Your task to perform on an android device: find which apps use the phone's location Image 0: 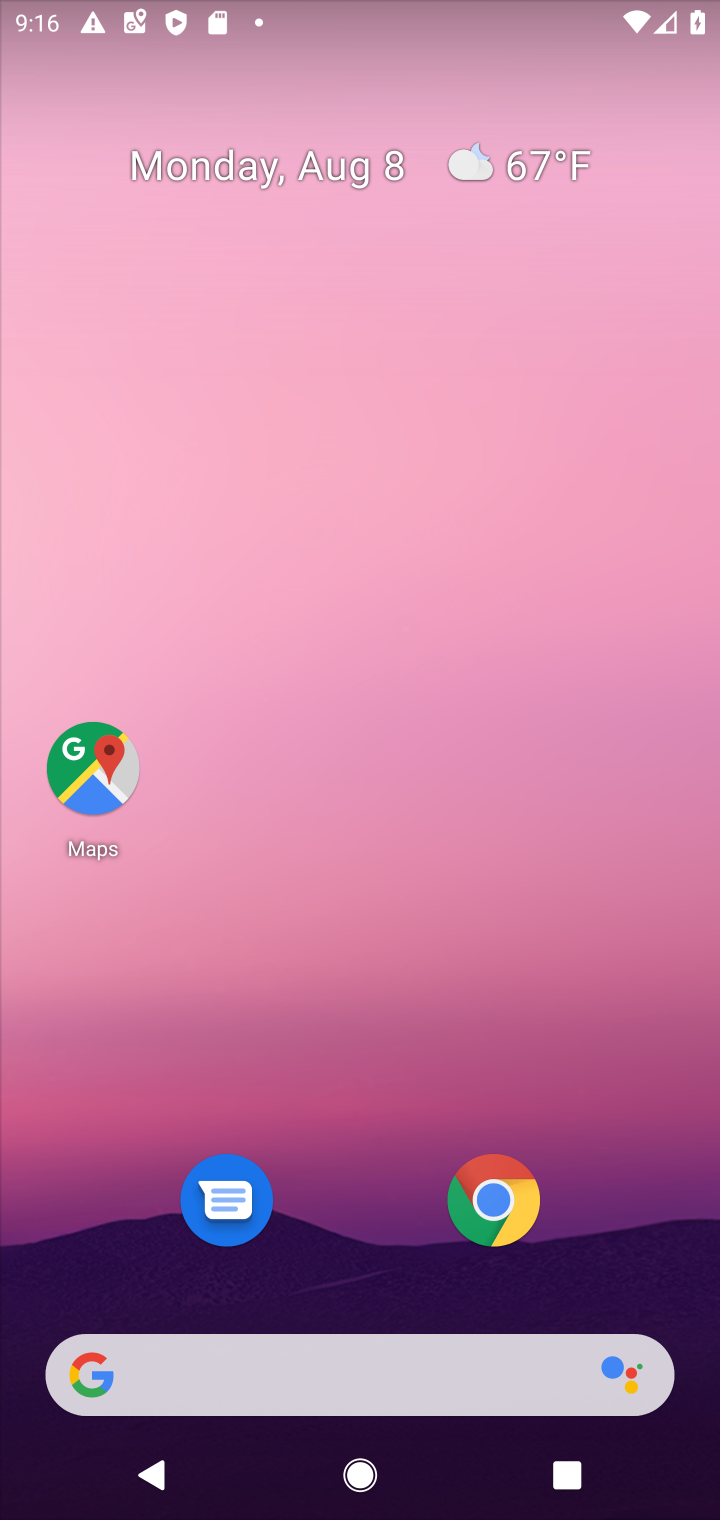
Step 0: press home button
Your task to perform on an android device: find which apps use the phone's location Image 1: 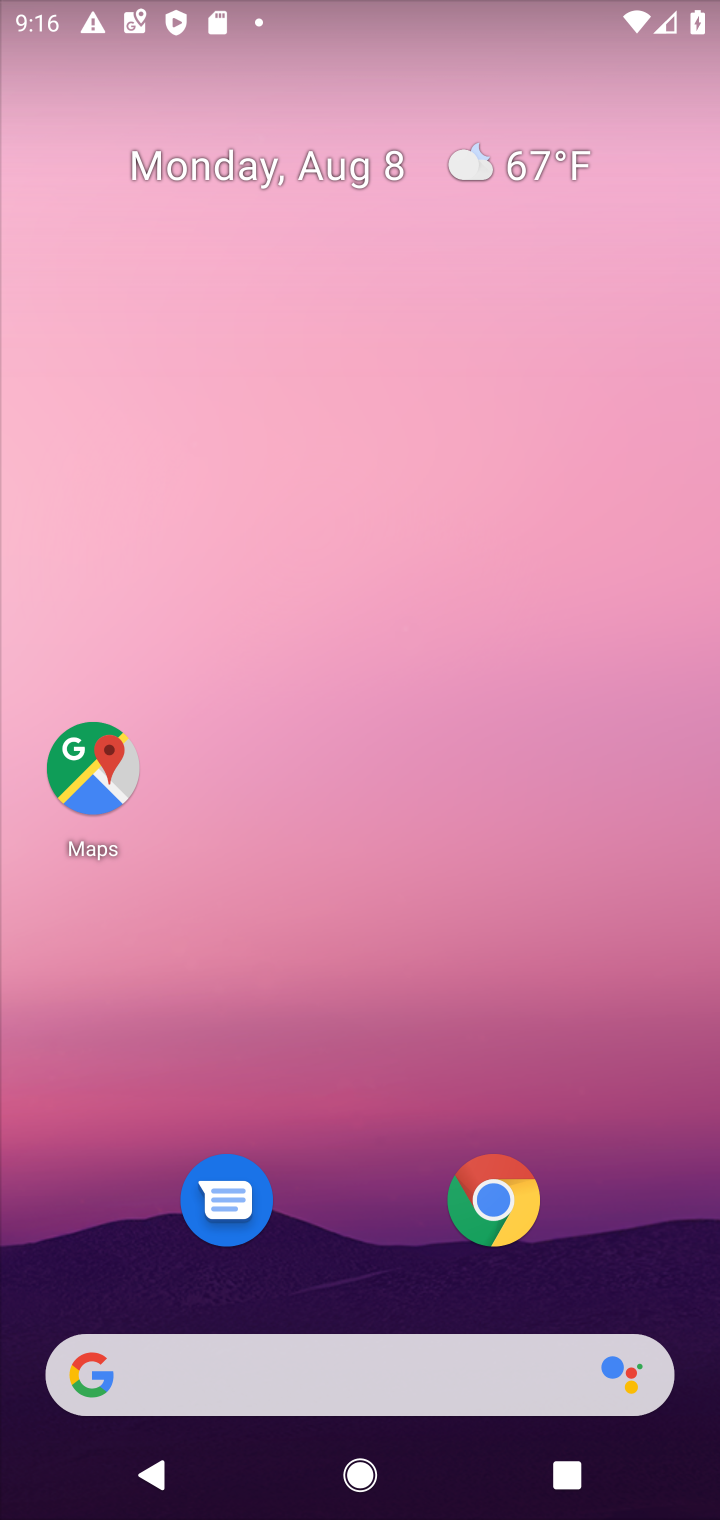
Step 1: drag from (302, 1349) to (603, 413)
Your task to perform on an android device: find which apps use the phone's location Image 2: 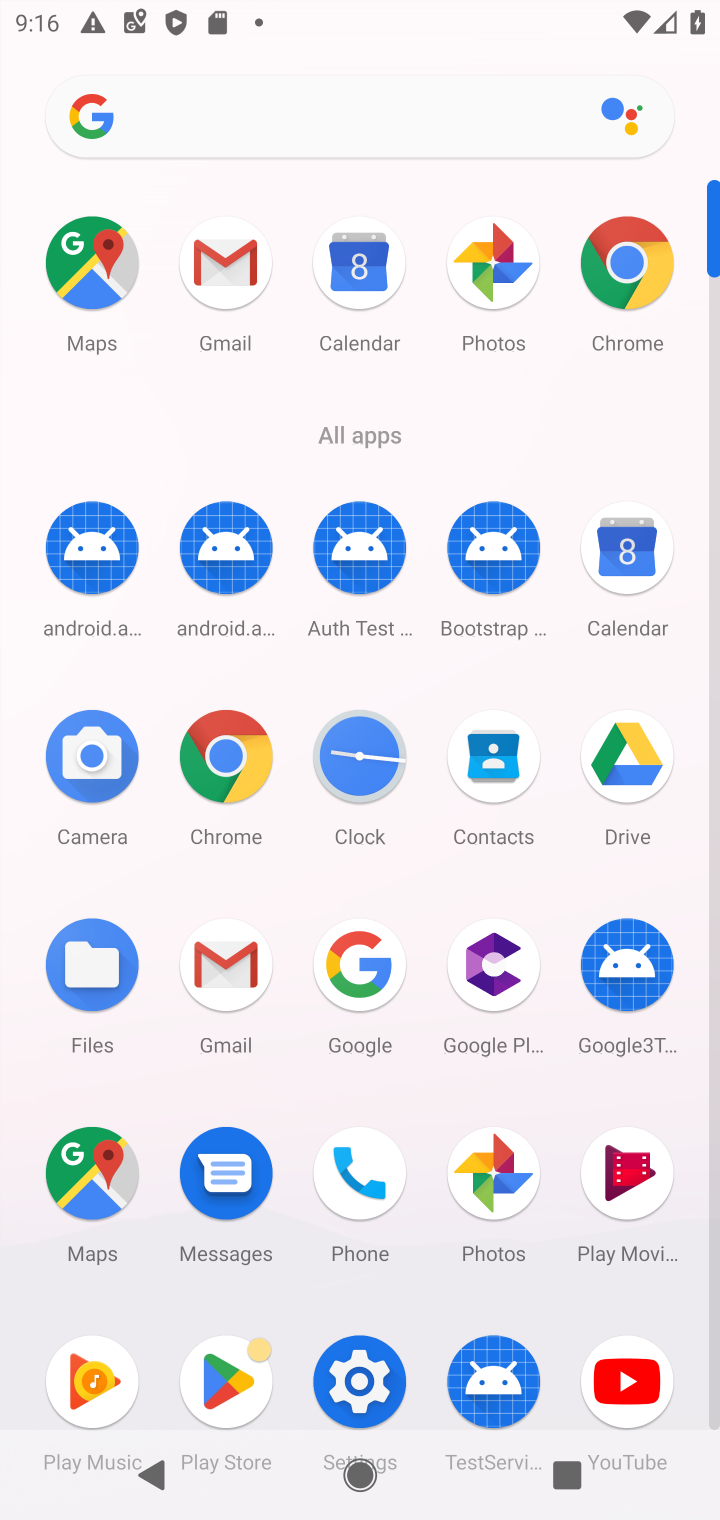
Step 2: click (362, 1368)
Your task to perform on an android device: find which apps use the phone's location Image 3: 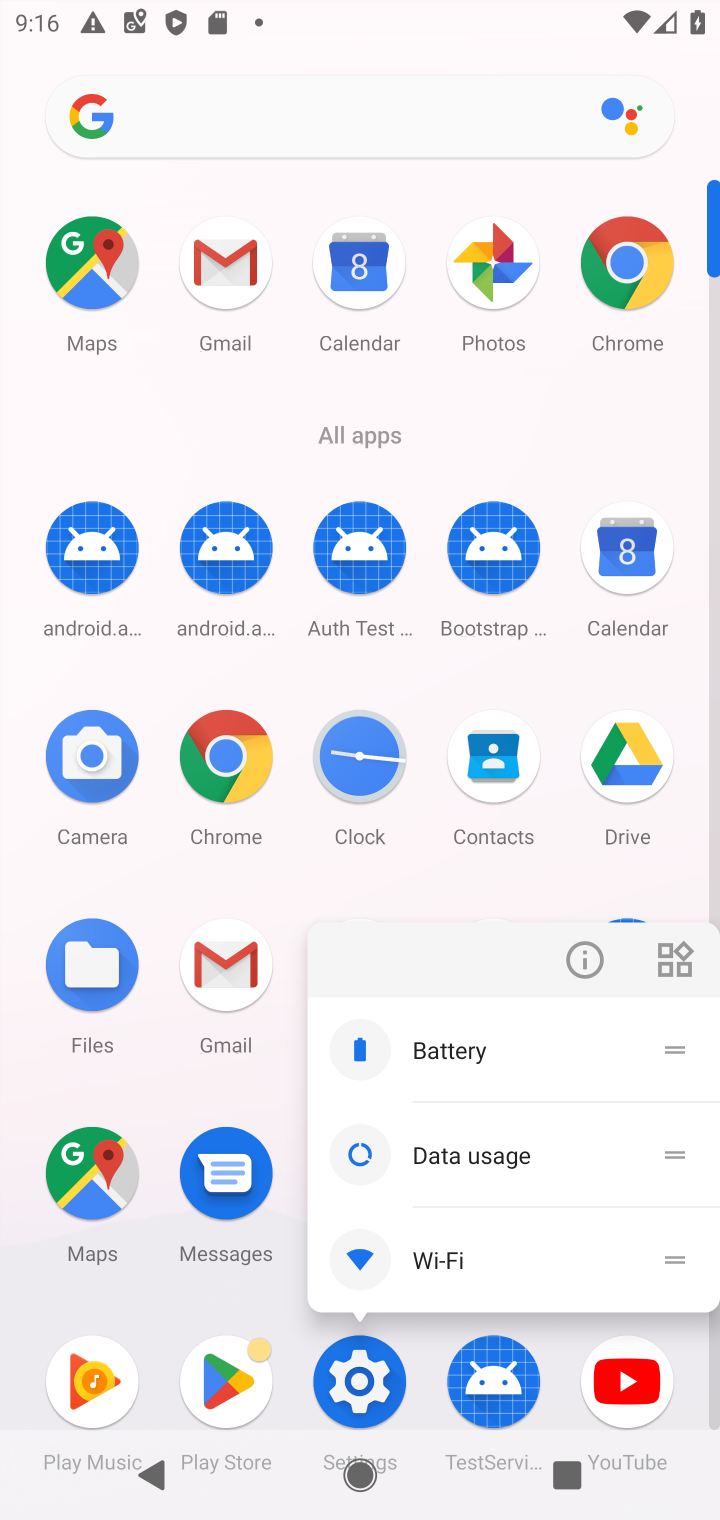
Step 3: click (356, 1368)
Your task to perform on an android device: find which apps use the phone's location Image 4: 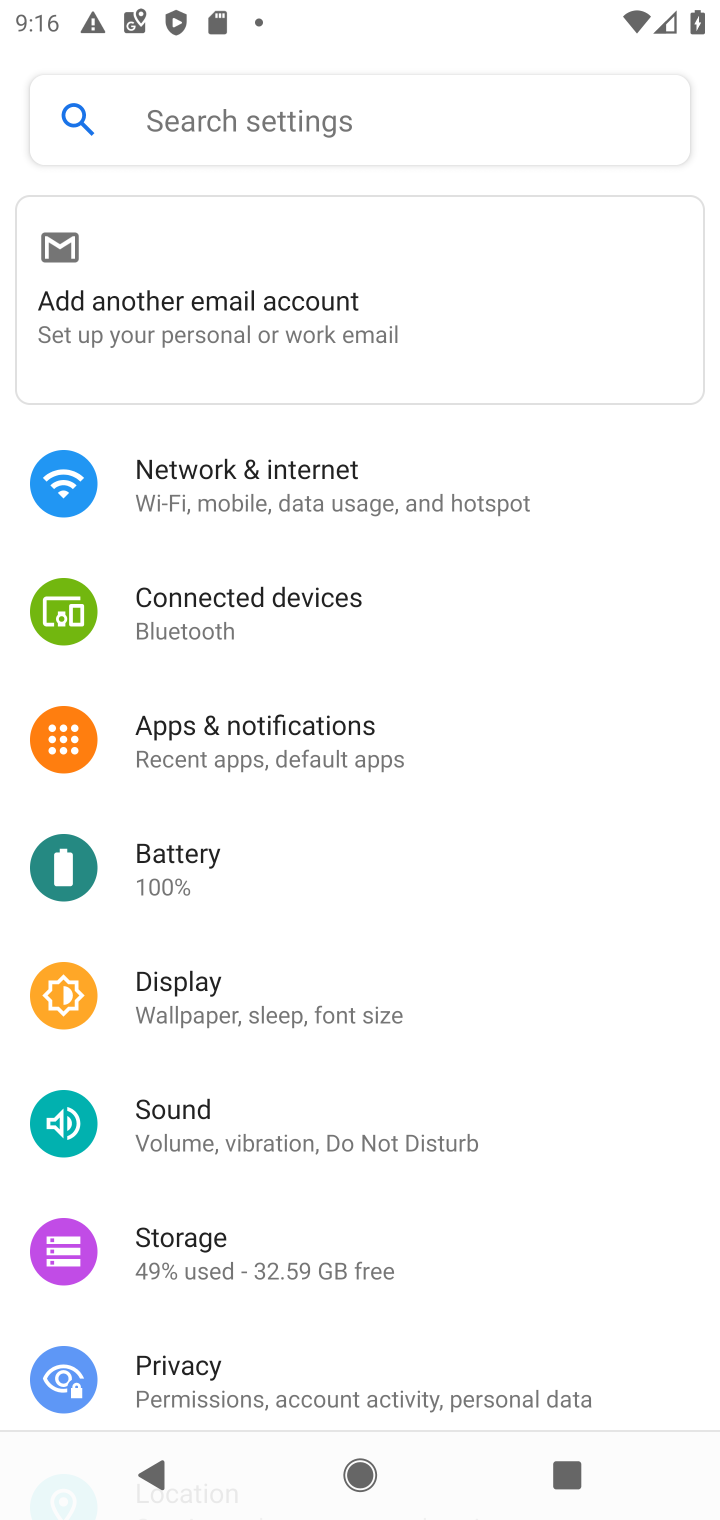
Step 4: drag from (432, 1226) to (705, 263)
Your task to perform on an android device: find which apps use the phone's location Image 5: 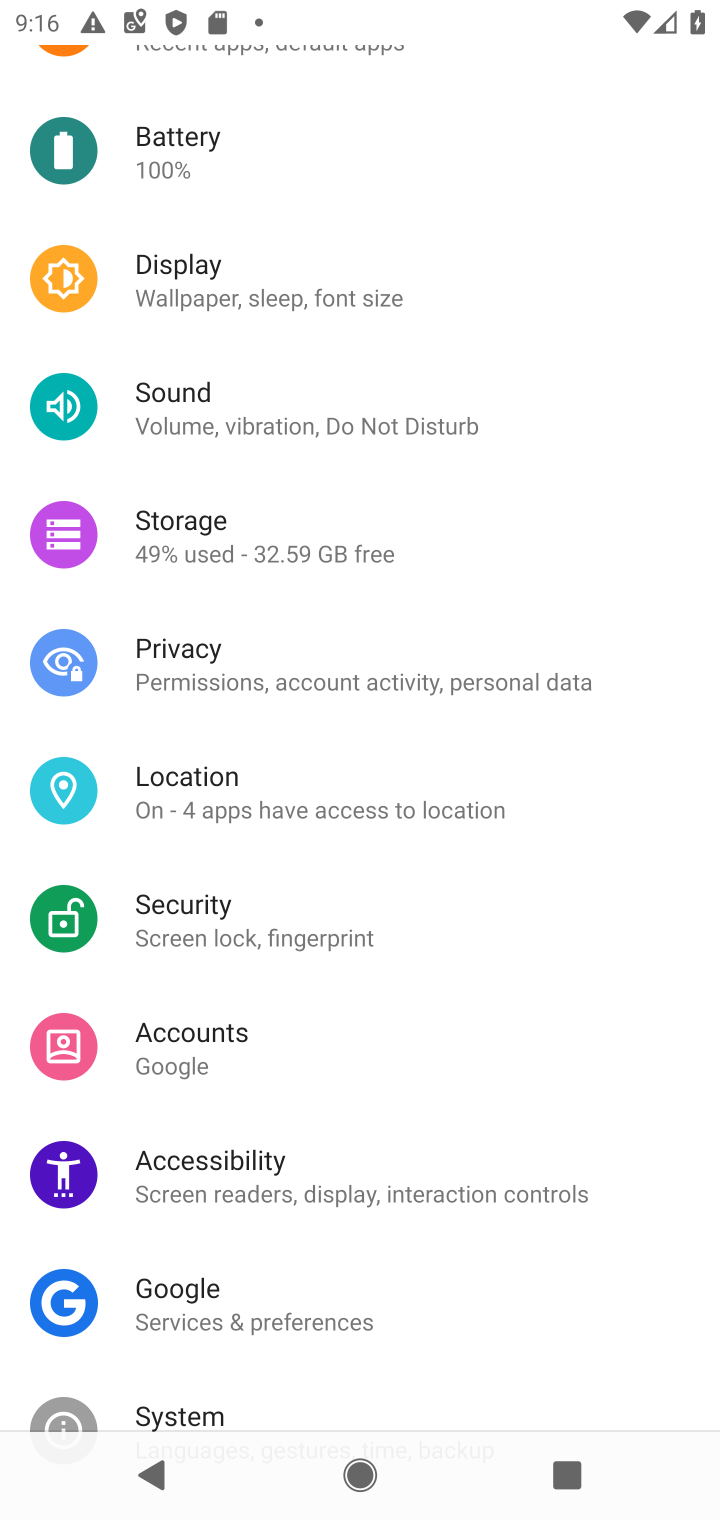
Step 5: click (204, 783)
Your task to perform on an android device: find which apps use the phone's location Image 6: 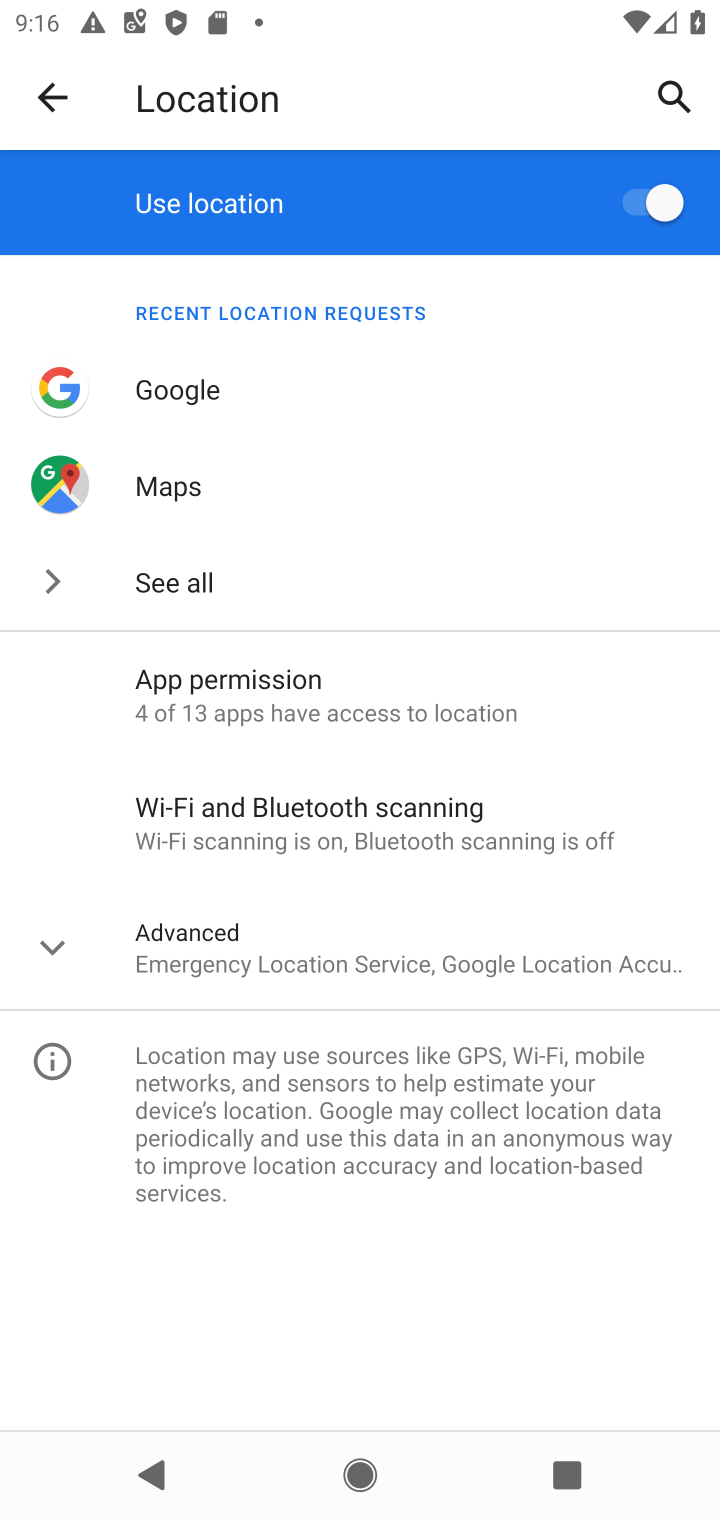
Step 6: click (166, 701)
Your task to perform on an android device: find which apps use the phone's location Image 7: 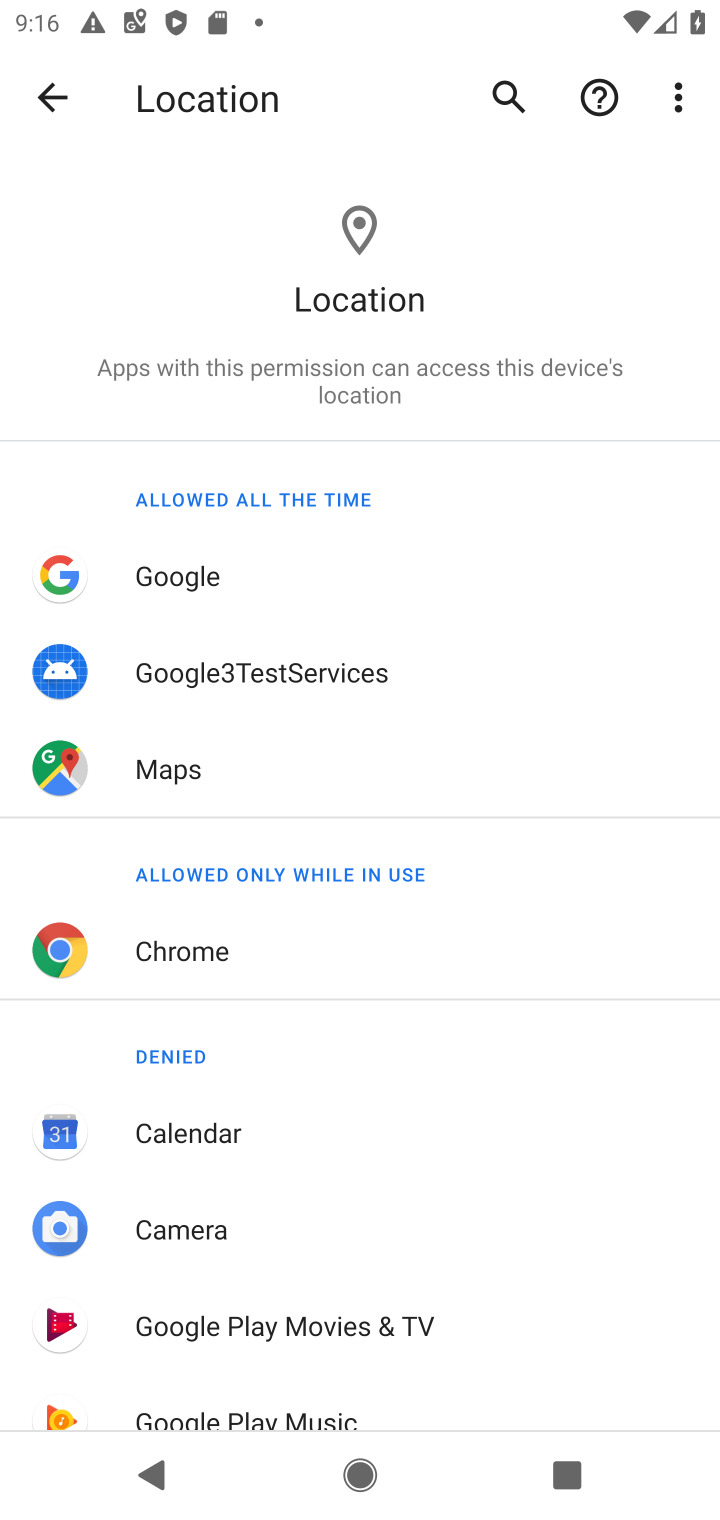
Step 7: drag from (426, 1284) to (589, 10)
Your task to perform on an android device: find which apps use the phone's location Image 8: 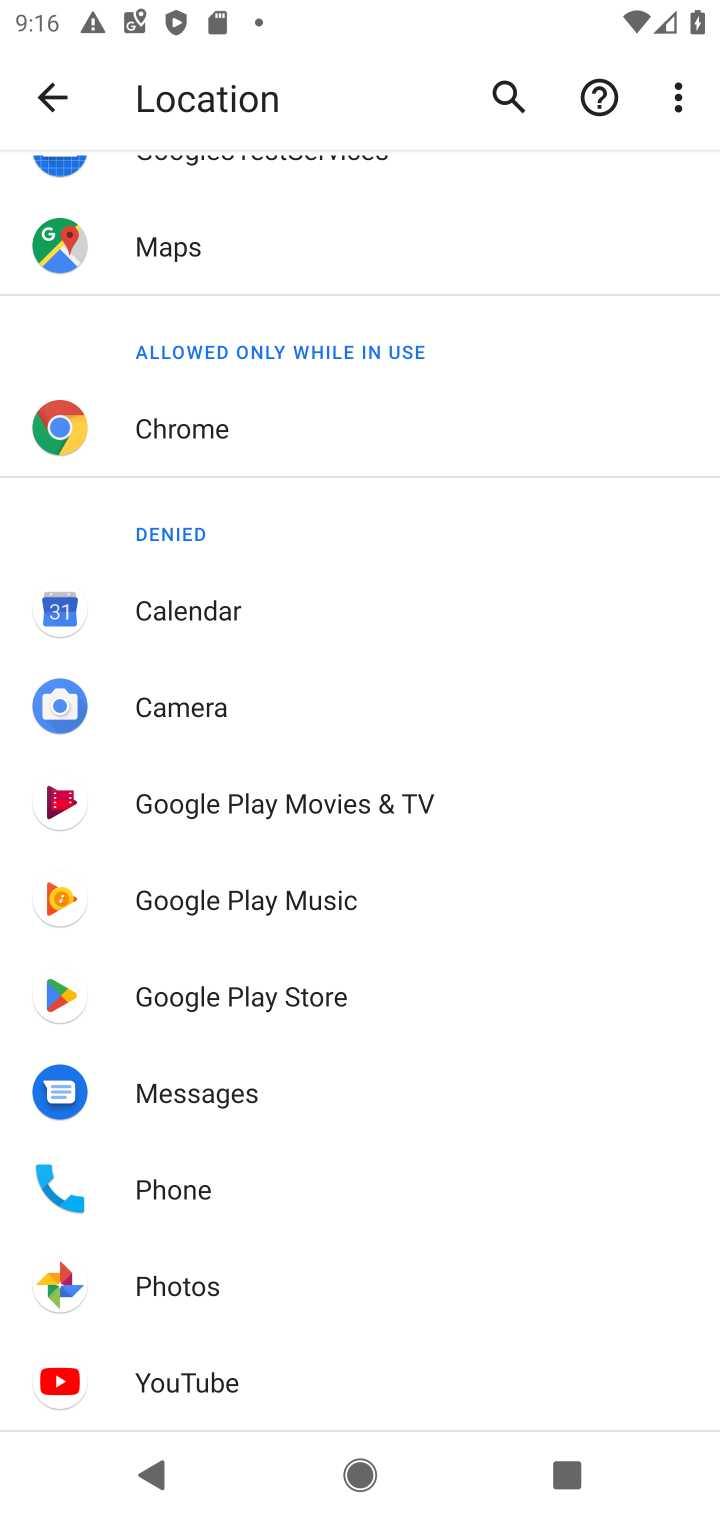
Step 8: click (195, 1188)
Your task to perform on an android device: find which apps use the phone's location Image 9: 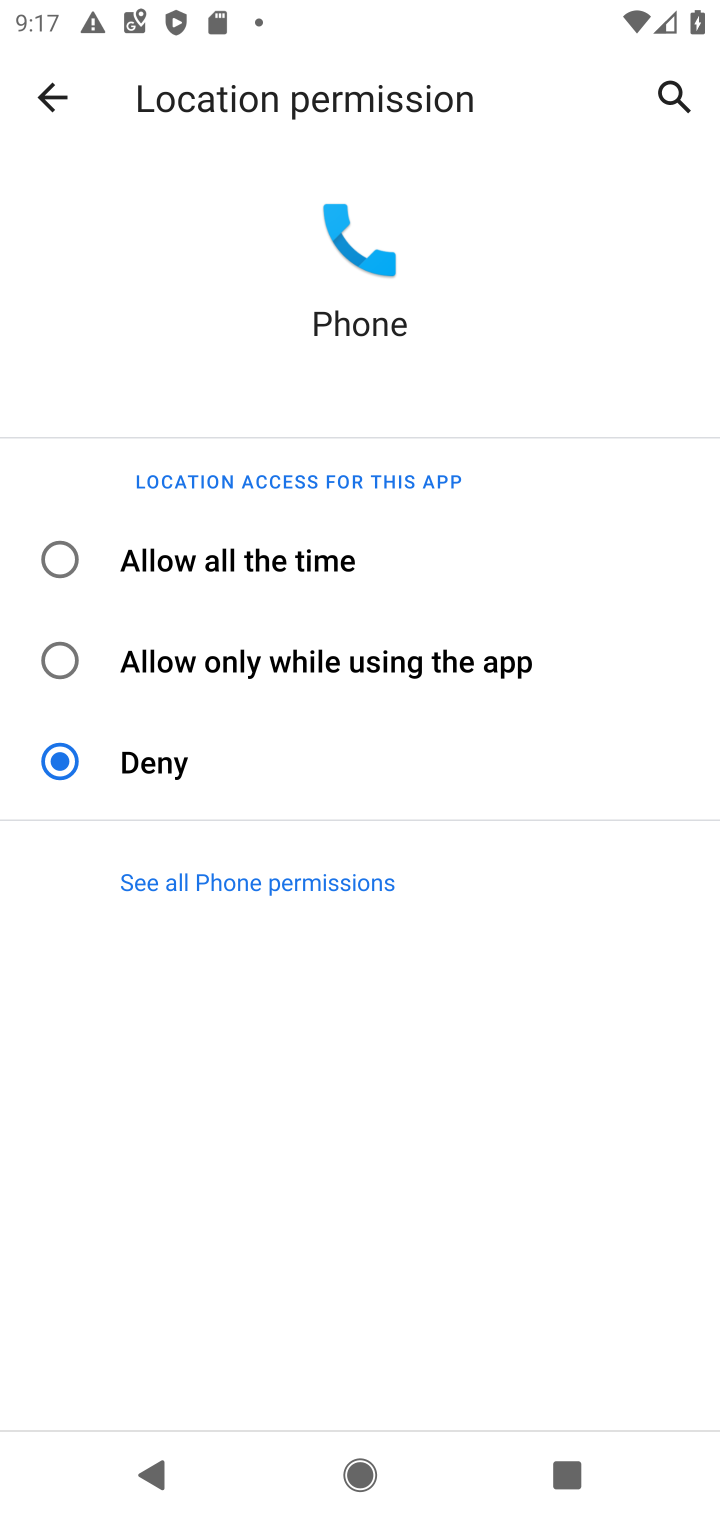
Step 9: task complete